Your task to perform on an android device: turn off airplane mode Image 0: 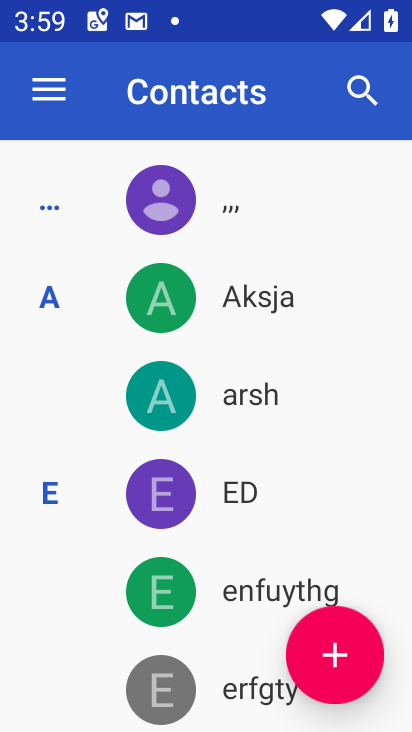
Step 0: drag from (253, 8) to (239, 509)
Your task to perform on an android device: turn off airplane mode Image 1: 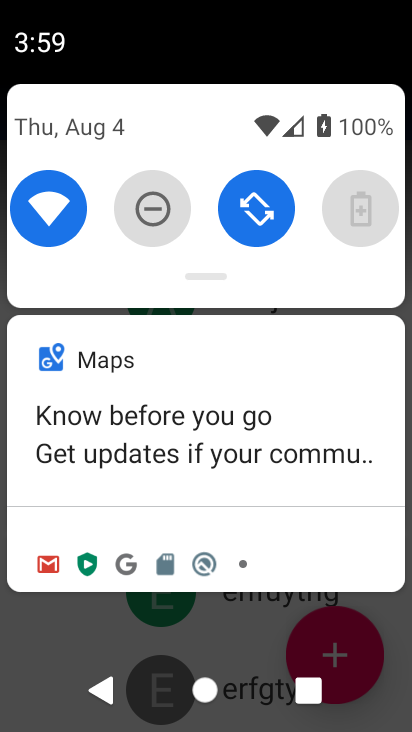
Step 1: task complete